Your task to perform on an android device: clear history in the chrome app Image 0: 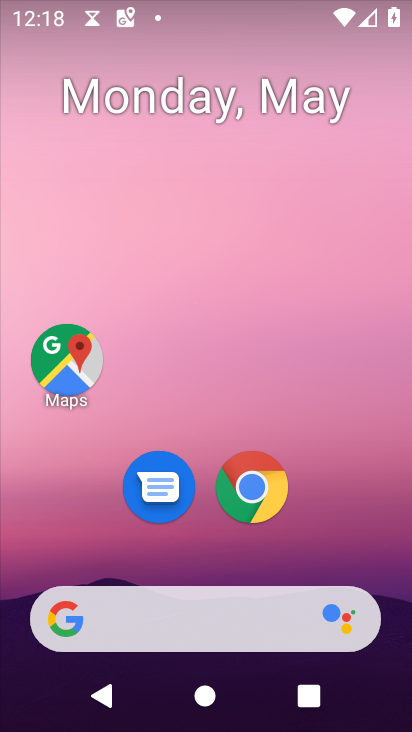
Step 0: click (253, 486)
Your task to perform on an android device: clear history in the chrome app Image 1: 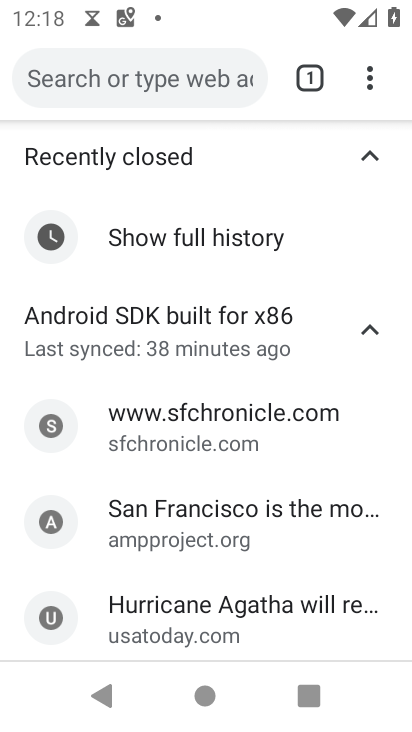
Step 1: click (366, 78)
Your task to perform on an android device: clear history in the chrome app Image 2: 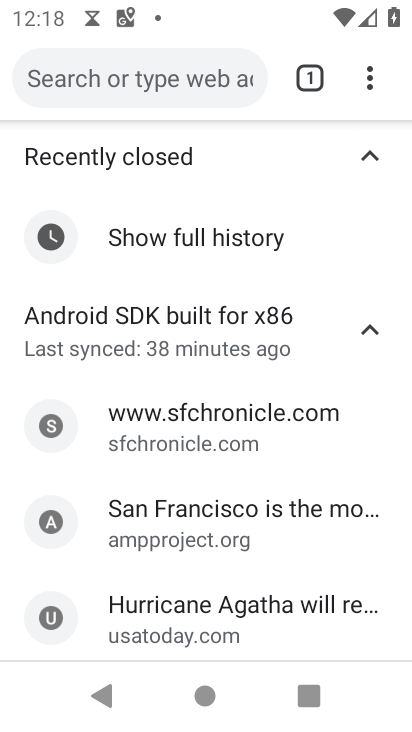
Step 2: click (364, 91)
Your task to perform on an android device: clear history in the chrome app Image 3: 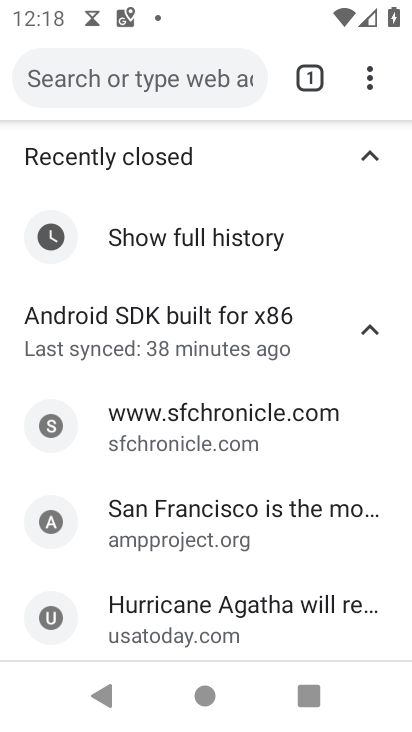
Step 3: click (365, 81)
Your task to perform on an android device: clear history in the chrome app Image 4: 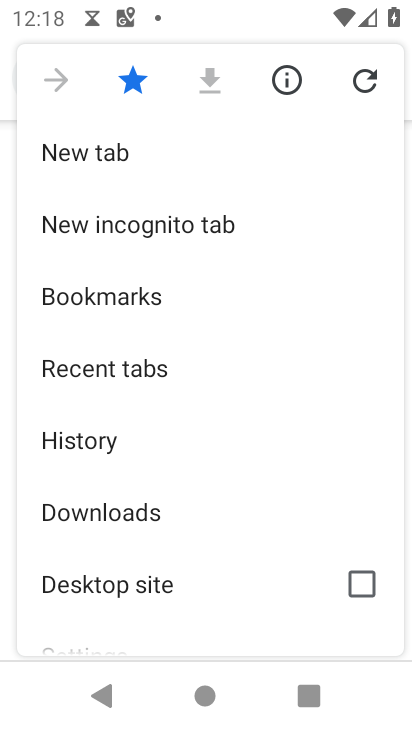
Step 4: click (124, 432)
Your task to perform on an android device: clear history in the chrome app Image 5: 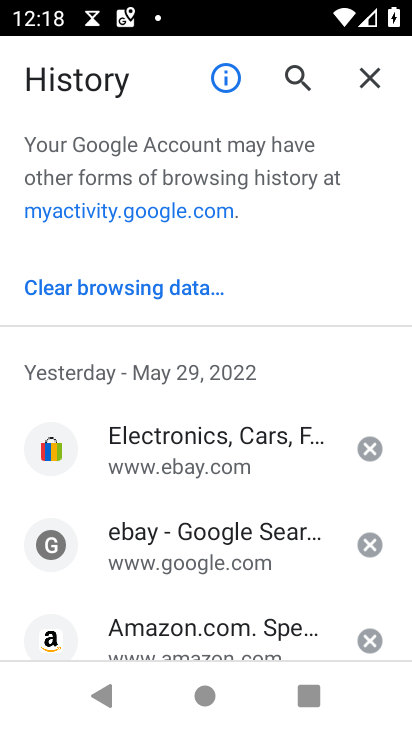
Step 5: click (98, 275)
Your task to perform on an android device: clear history in the chrome app Image 6: 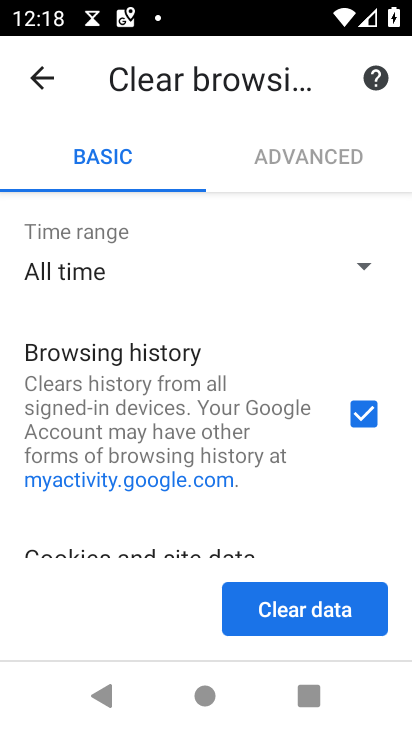
Step 6: click (292, 597)
Your task to perform on an android device: clear history in the chrome app Image 7: 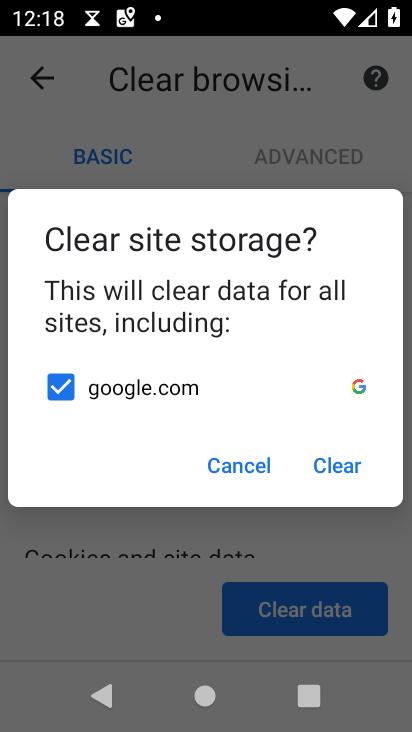
Step 7: click (334, 443)
Your task to perform on an android device: clear history in the chrome app Image 8: 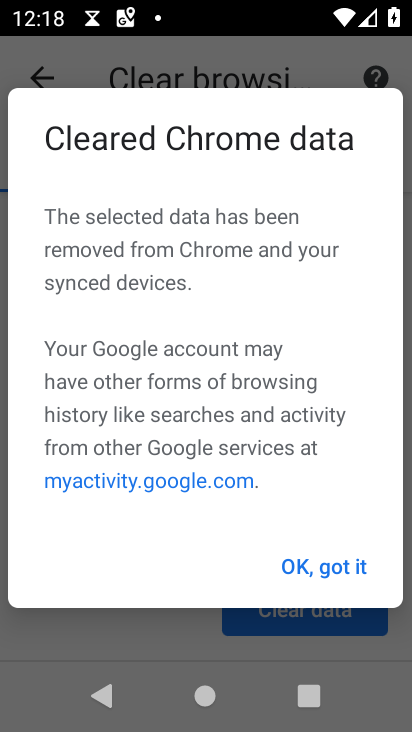
Step 8: click (339, 577)
Your task to perform on an android device: clear history in the chrome app Image 9: 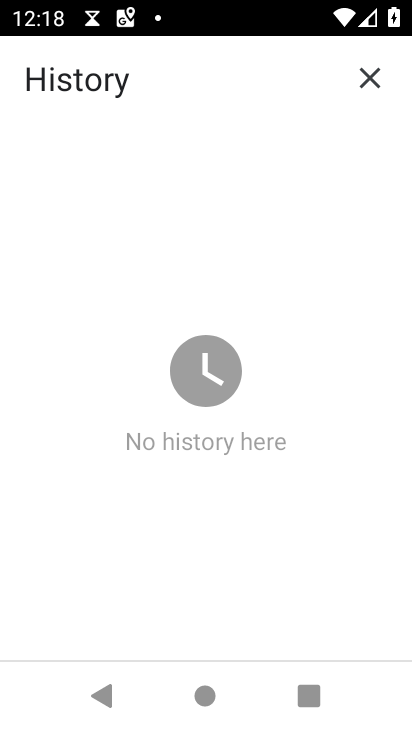
Step 9: task complete